Your task to perform on an android device: snooze an email in the gmail app Image 0: 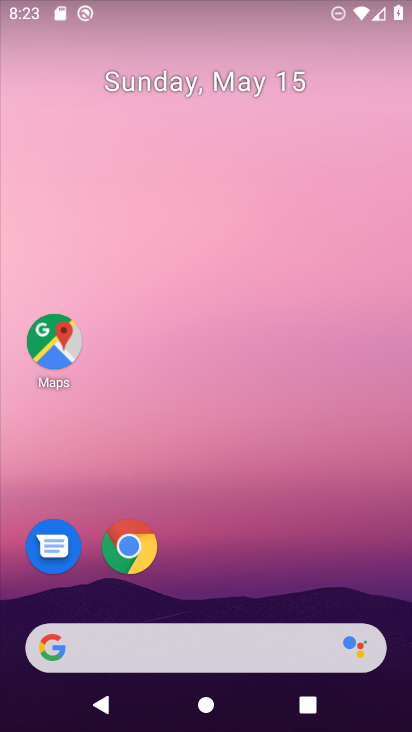
Step 0: drag from (256, 542) to (232, 29)
Your task to perform on an android device: snooze an email in the gmail app Image 1: 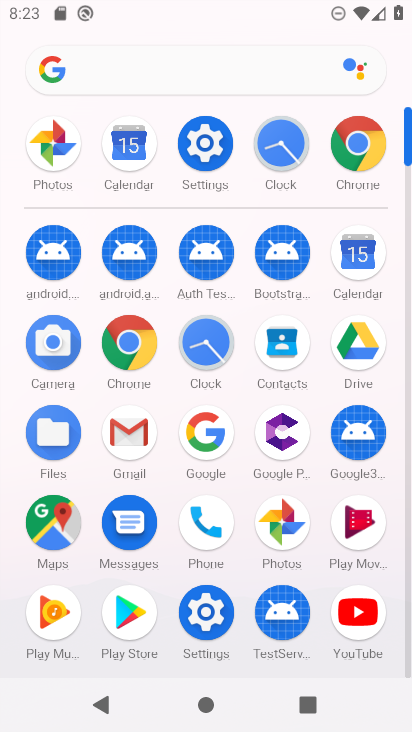
Step 1: click (131, 423)
Your task to perform on an android device: snooze an email in the gmail app Image 2: 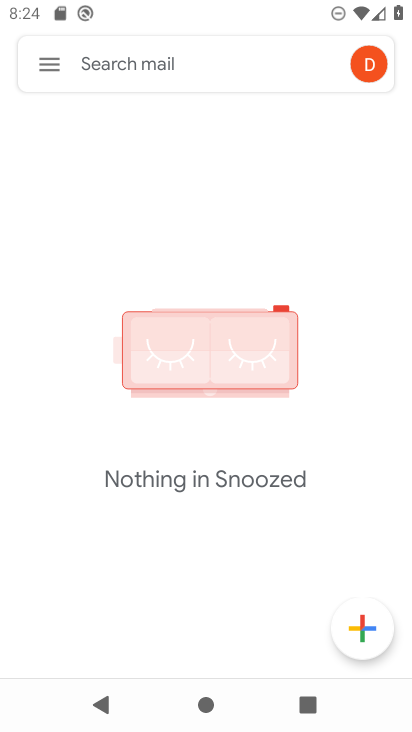
Step 2: click (46, 57)
Your task to perform on an android device: snooze an email in the gmail app Image 3: 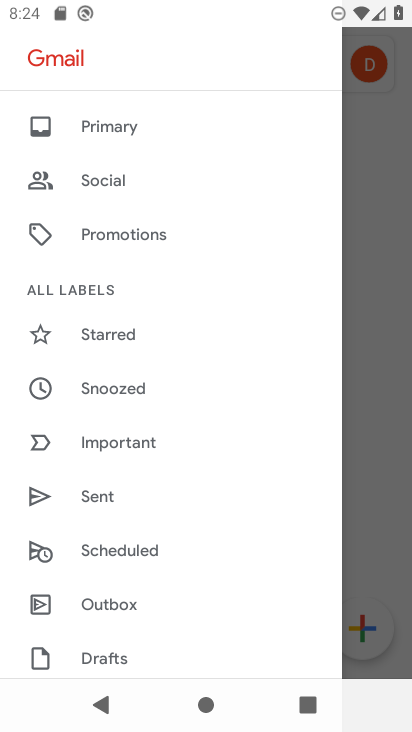
Step 3: drag from (210, 486) to (192, 151)
Your task to perform on an android device: snooze an email in the gmail app Image 4: 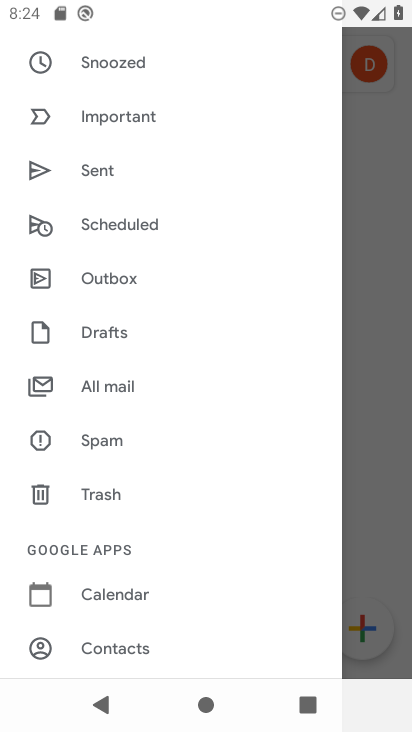
Step 4: click (108, 383)
Your task to perform on an android device: snooze an email in the gmail app Image 5: 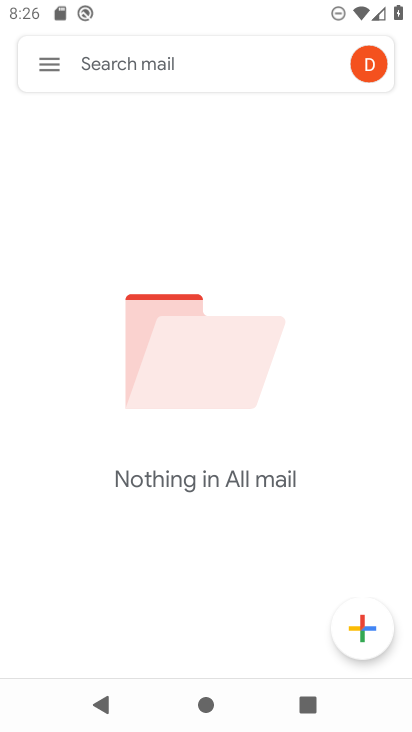
Step 5: task complete